Your task to perform on an android device: turn on location history Image 0: 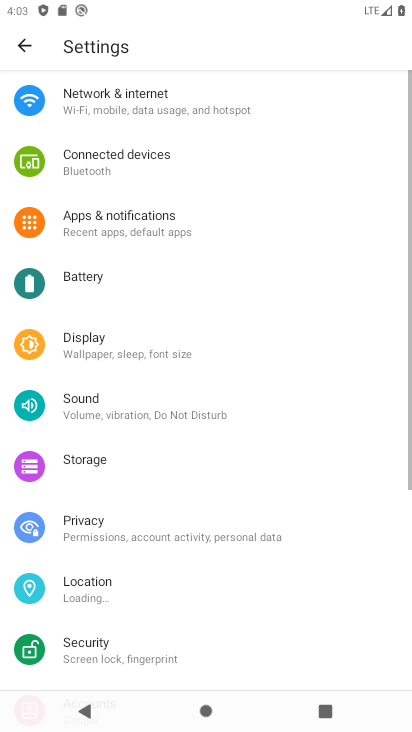
Step 0: drag from (241, 485) to (205, 233)
Your task to perform on an android device: turn on location history Image 1: 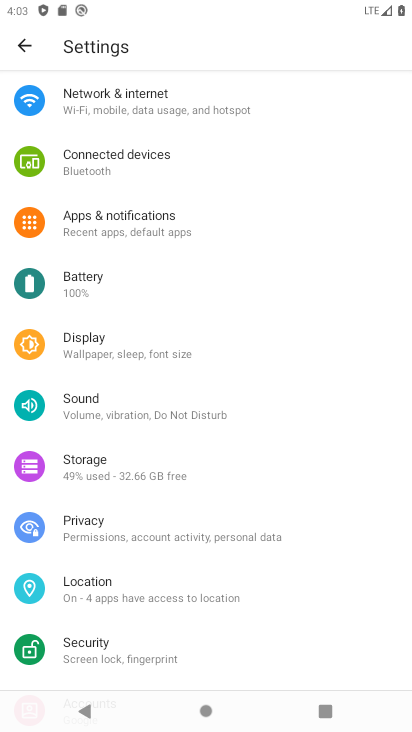
Step 1: click (95, 592)
Your task to perform on an android device: turn on location history Image 2: 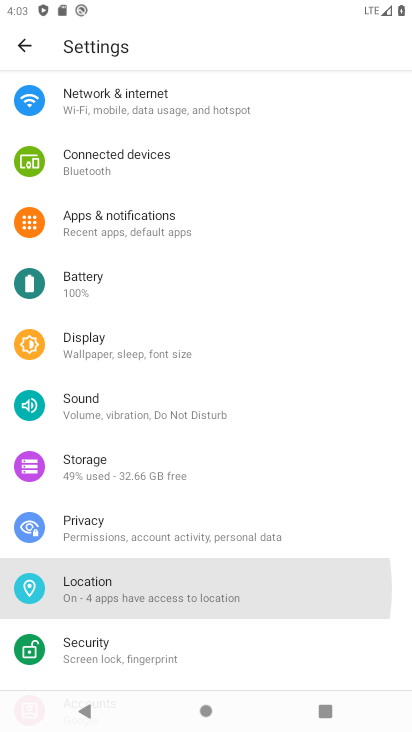
Step 2: click (95, 591)
Your task to perform on an android device: turn on location history Image 3: 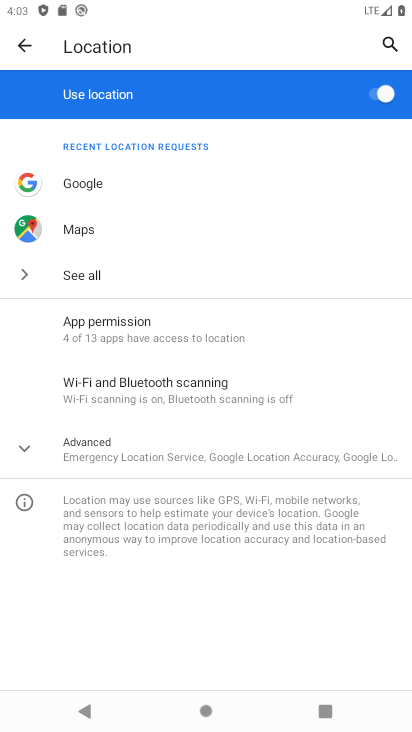
Step 3: click (78, 436)
Your task to perform on an android device: turn on location history Image 4: 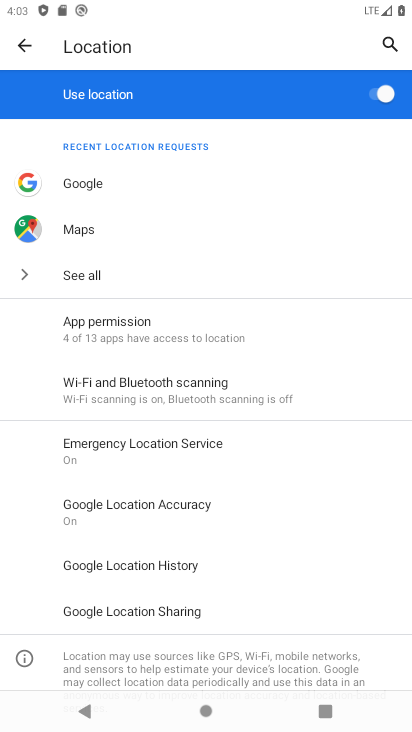
Step 4: click (116, 560)
Your task to perform on an android device: turn on location history Image 5: 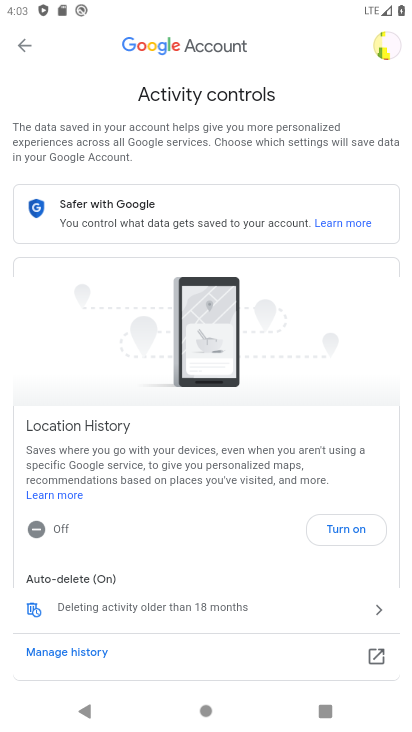
Step 5: task complete